Your task to perform on an android device: Go to Wikipedia Image 0: 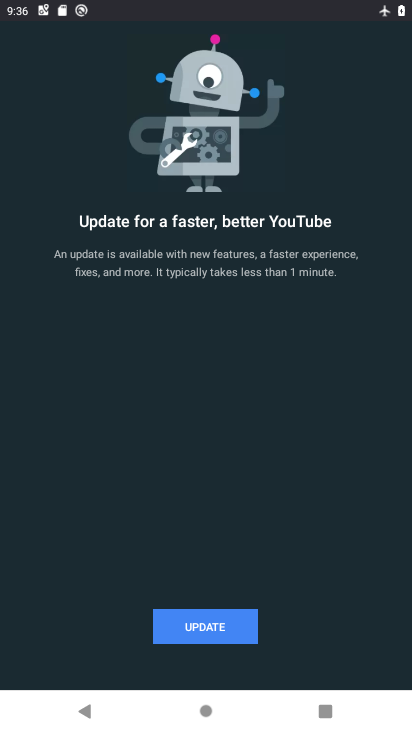
Step 0: press home button
Your task to perform on an android device: Go to Wikipedia Image 1: 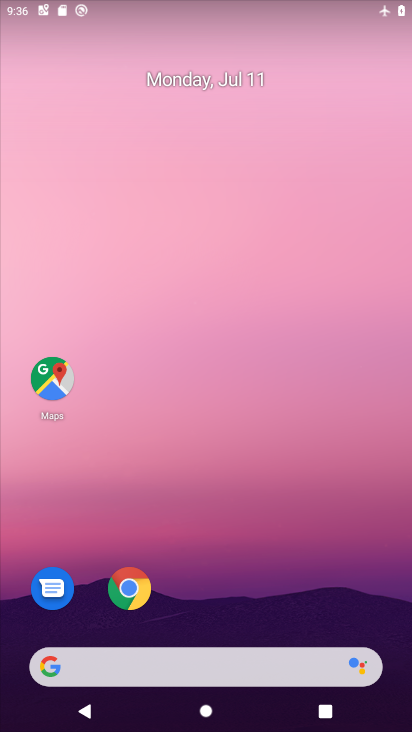
Step 1: drag from (203, 677) to (124, 211)
Your task to perform on an android device: Go to Wikipedia Image 2: 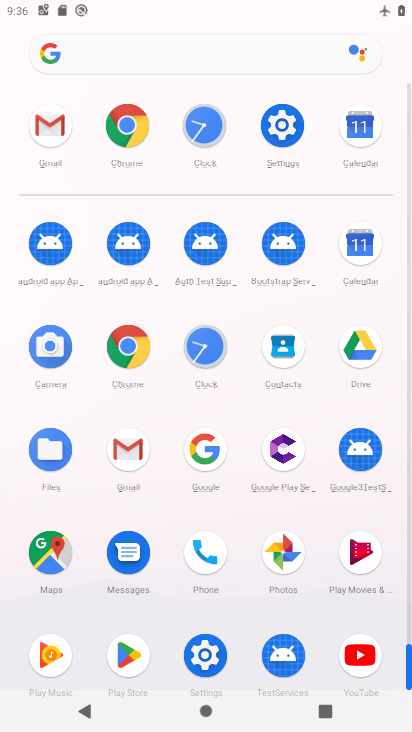
Step 2: click (126, 122)
Your task to perform on an android device: Go to Wikipedia Image 3: 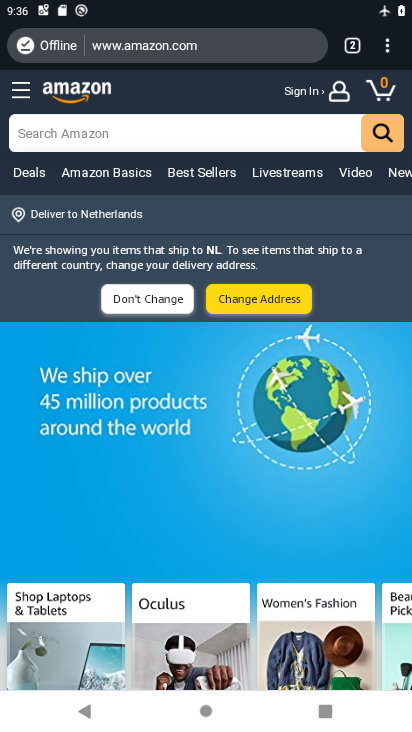
Step 3: click (399, 44)
Your task to perform on an android device: Go to Wikipedia Image 4: 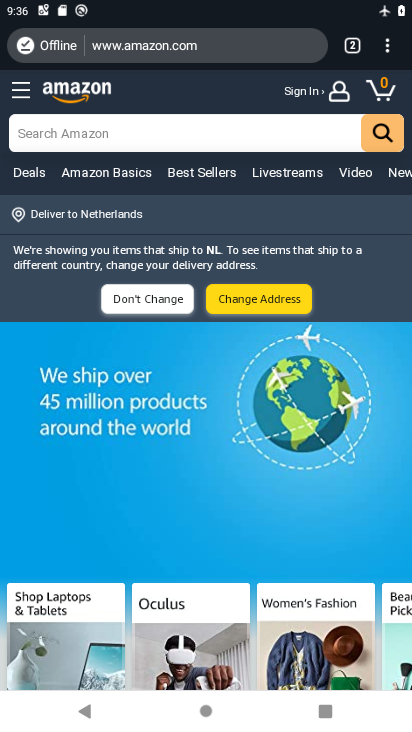
Step 4: click (391, 40)
Your task to perform on an android device: Go to Wikipedia Image 5: 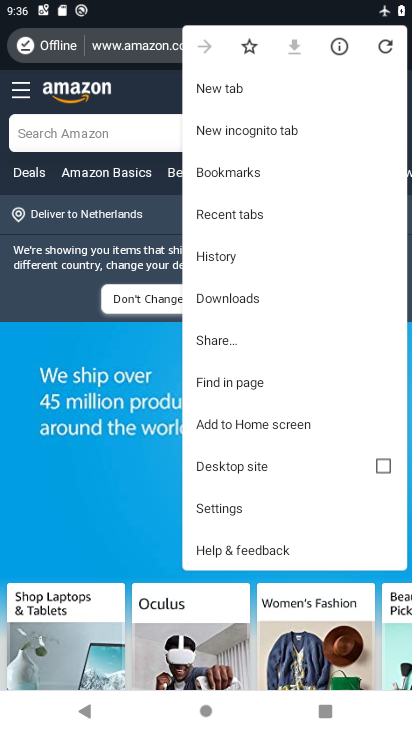
Step 5: click (263, 87)
Your task to perform on an android device: Go to Wikipedia Image 6: 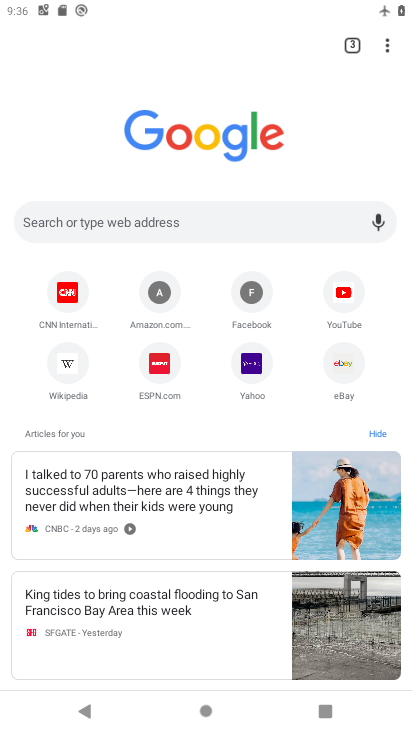
Step 6: click (64, 350)
Your task to perform on an android device: Go to Wikipedia Image 7: 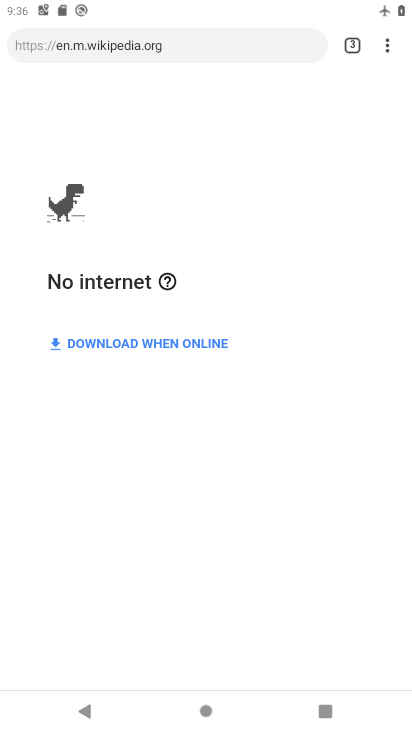
Step 7: task complete